Your task to perform on an android device: toggle data saver in the chrome app Image 0: 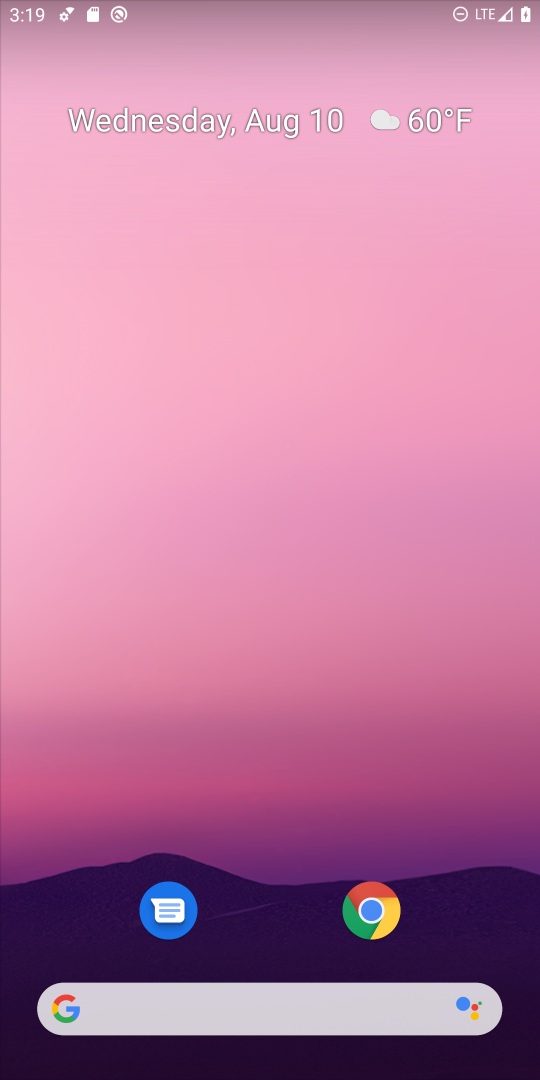
Step 0: click (380, 902)
Your task to perform on an android device: toggle data saver in the chrome app Image 1: 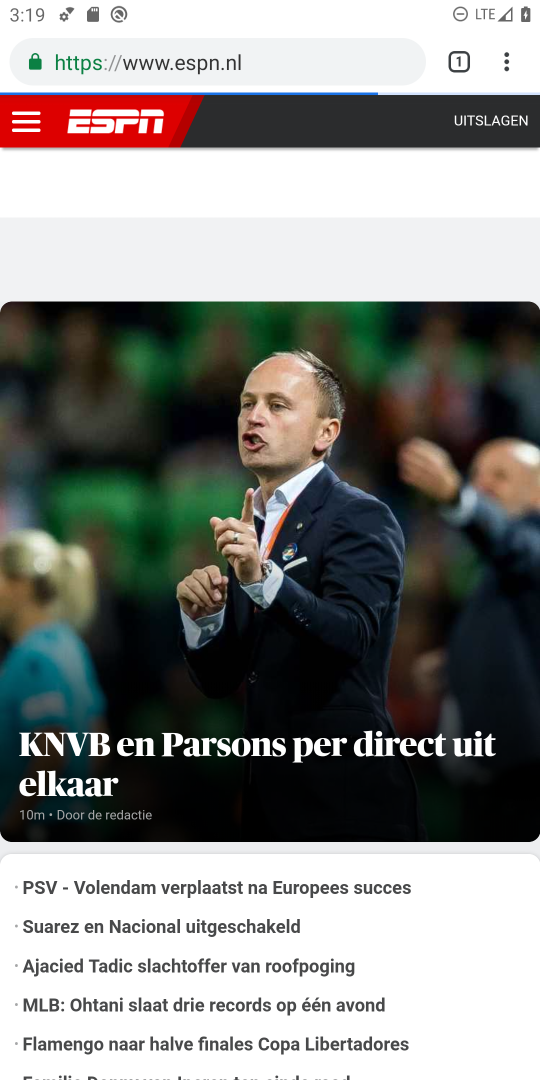
Step 1: click (506, 58)
Your task to perform on an android device: toggle data saver in the chrome app Image 2: 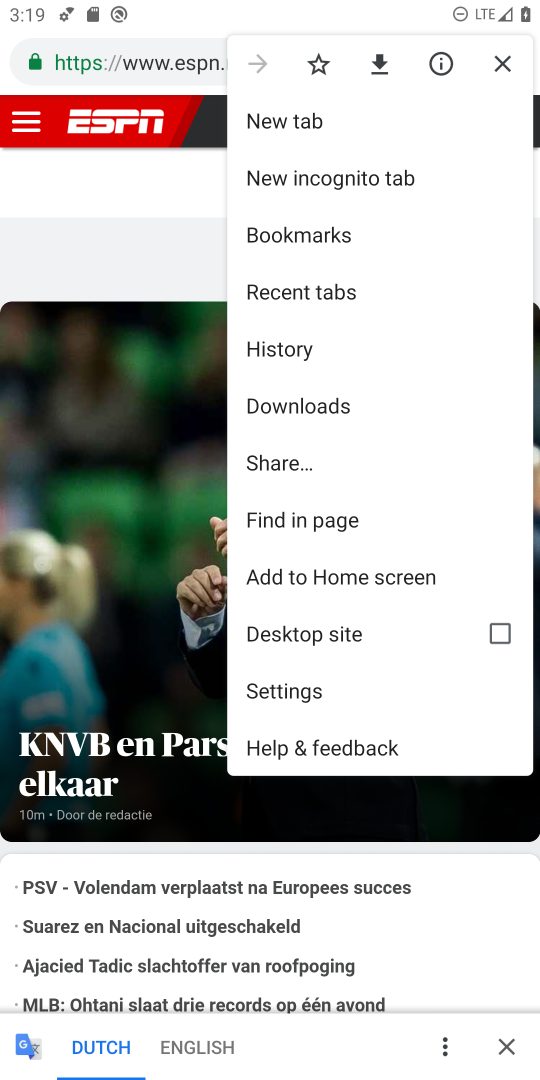
Step 2: click (297, 685)
Your task to perform on an android device: toggle data saver in the chrome app Image 3: 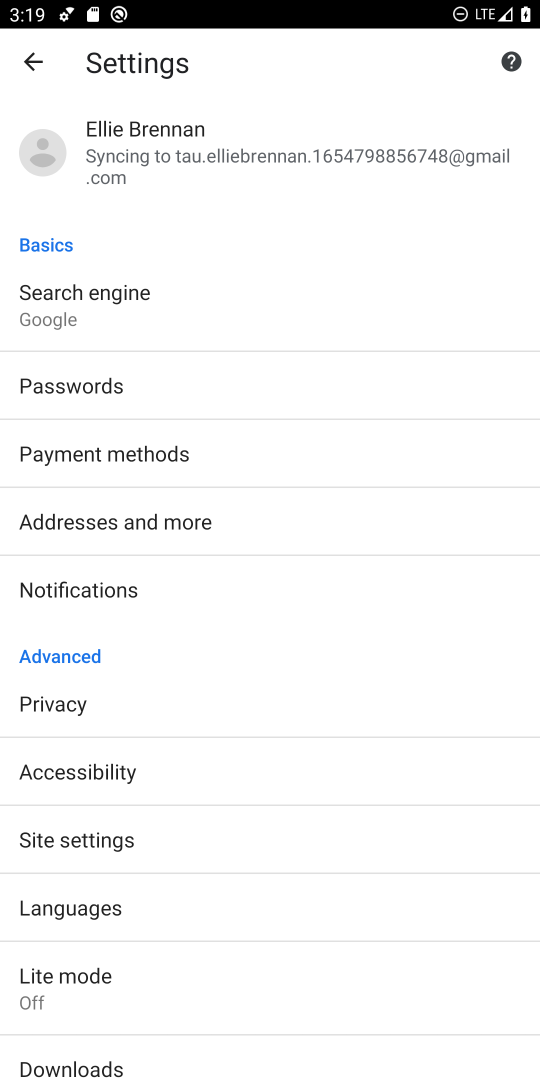
Step 3: click (96, 998)
Your task to perform on an android device: toggle data saver in the chrome app Image 4: 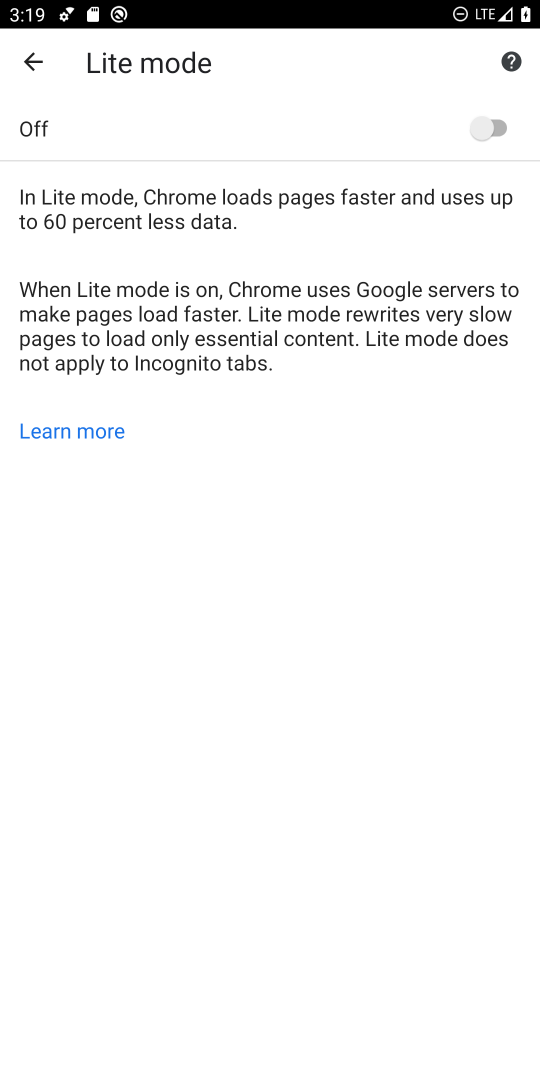
Step 4: click (482, 131)
Your task to perform on an android device: toggle data saver in the chrome app Image 5: 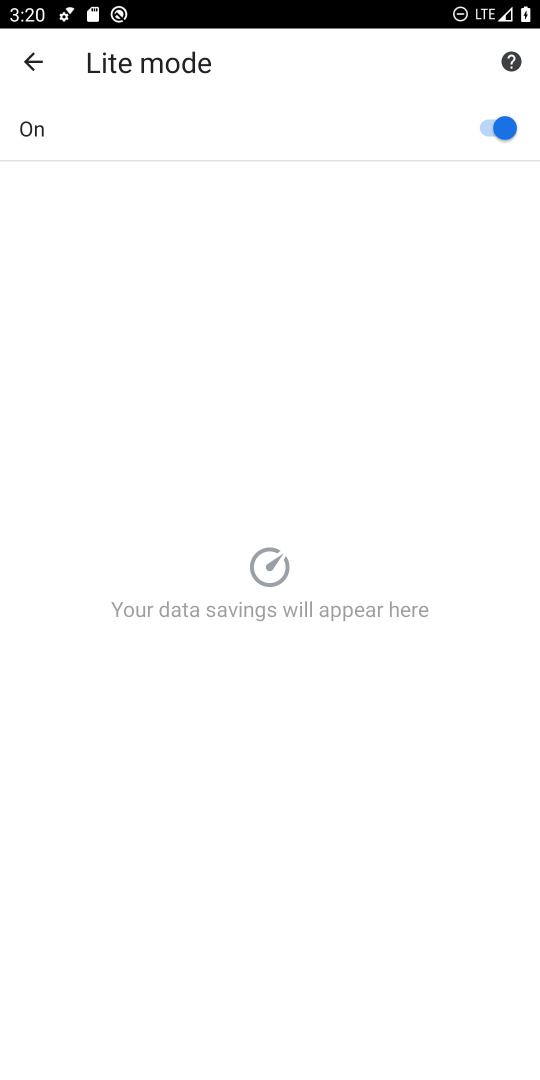
Step 5: task complete